Your task to perform on an android device: Go to settings Image 0: 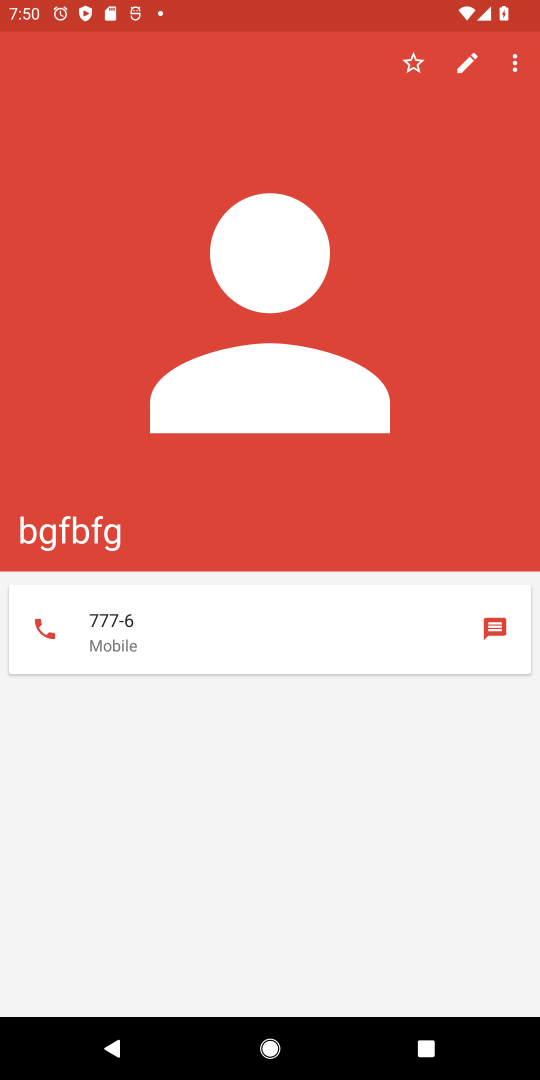
Step 0: press back button
Your task to perform on an android device: Go to settings Image 1: 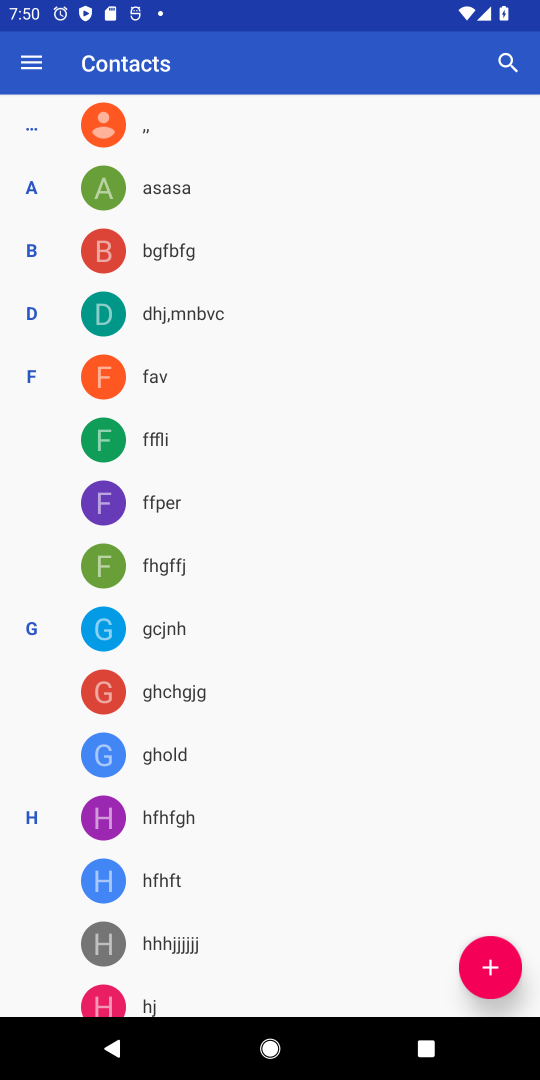
Step 1: press back button
Your task to perform on an android device: Go to settings Image 2: 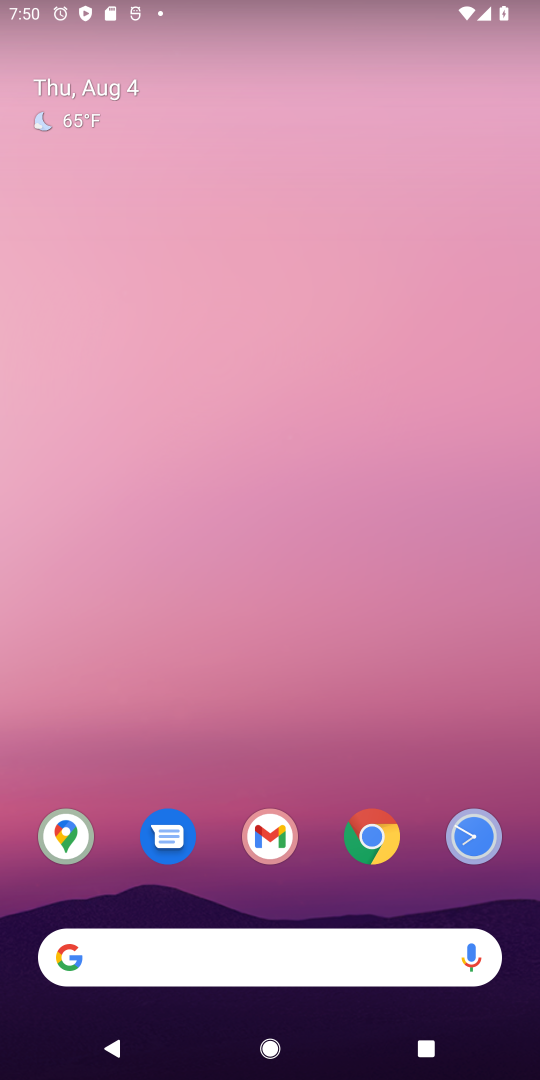
Step 2: drag from (244, 813) to (331, 48)
Your task to perform on an android device: Go to settings Image 3: 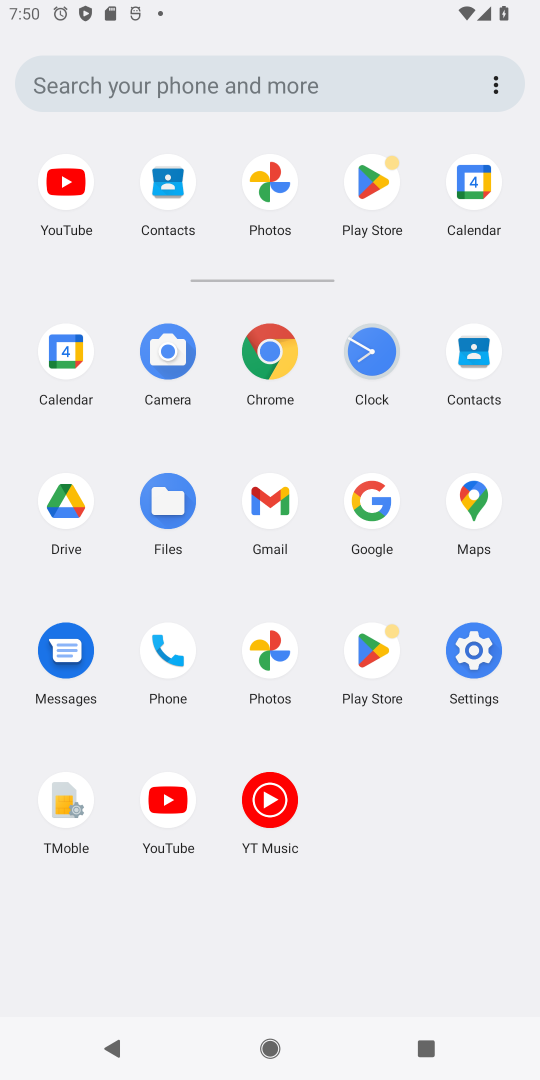
Step 3: click (461, 631)
Your task to perform on an android device: Go to settings Image 4: 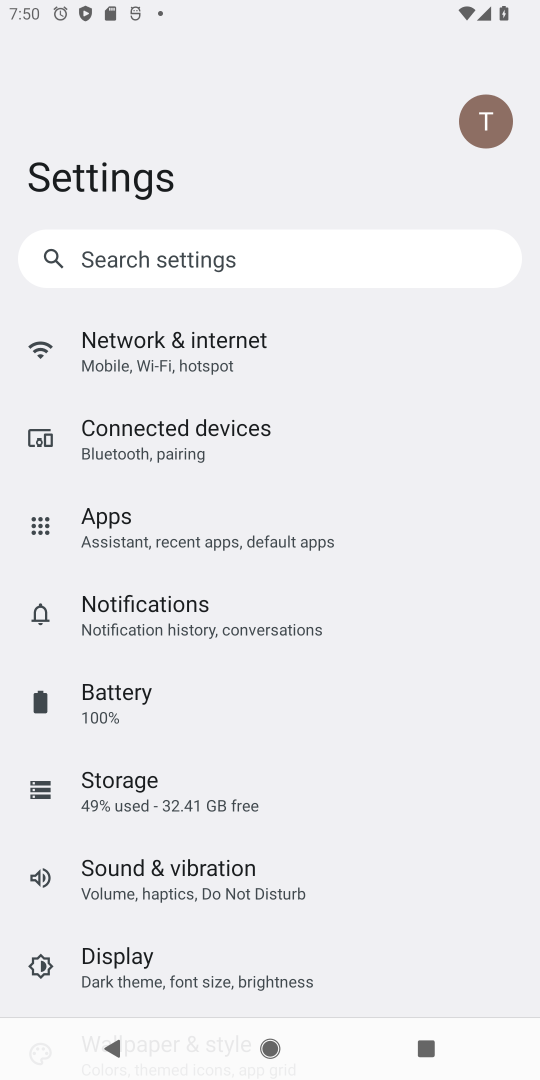
Step 4: task complete